Your task to perform on an android device: open wifi settings Image 0: 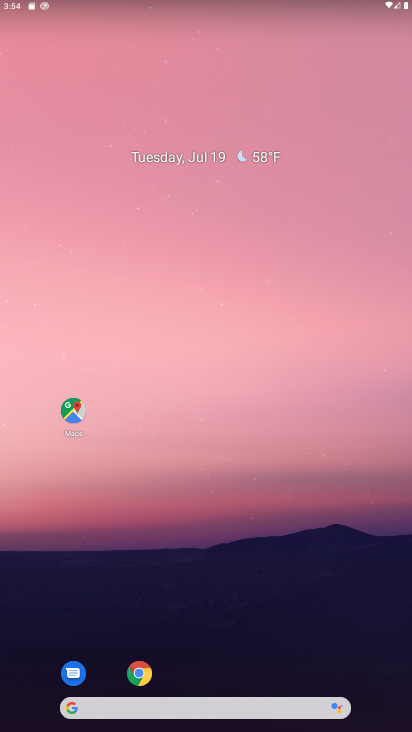
Step 0: drag from (207, 685) to (242, 52)
Your task to perform on an android device: open wifi settings Image 1: 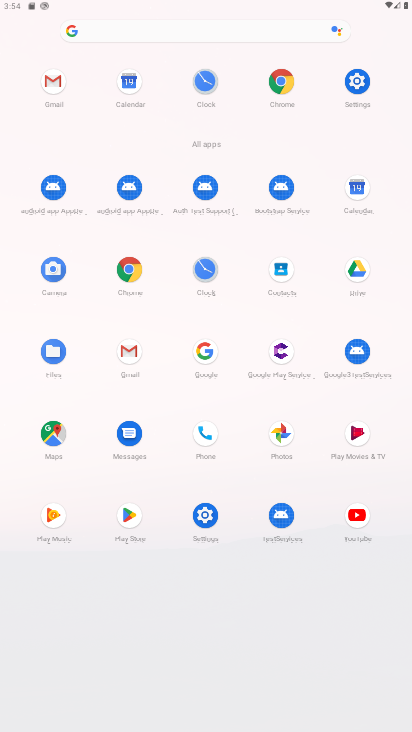
Step 1: click (352, 78)
Your task to perform on an android device: open wifi settings Image 2: 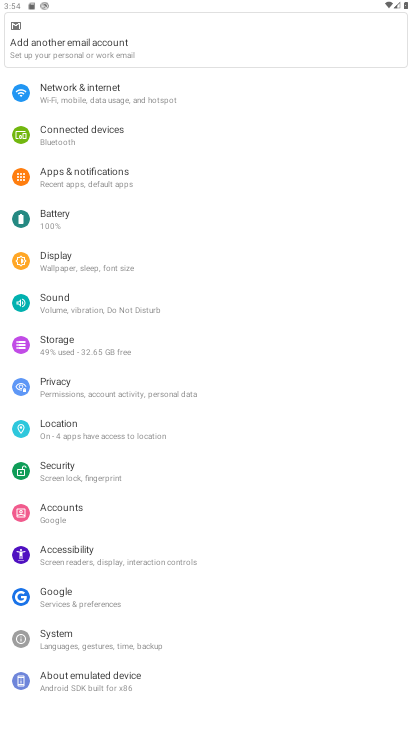
Step 2: click (117, 95)
Your task to perform on an android device: open wifi settings Image 3: 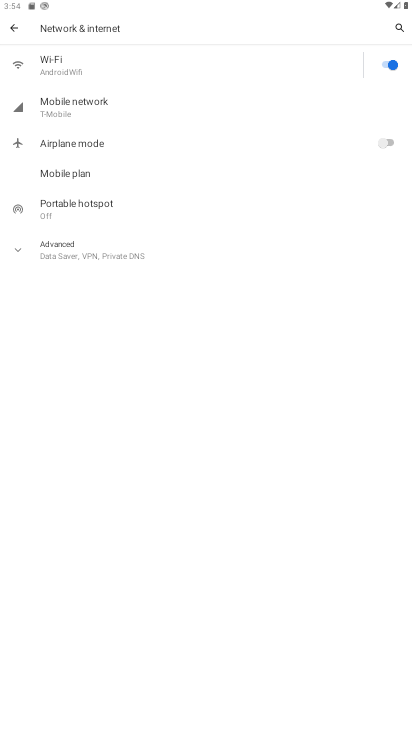
Step 3: click (99, 66)
Your task to perform on an android device: open wifi settings Image 4: 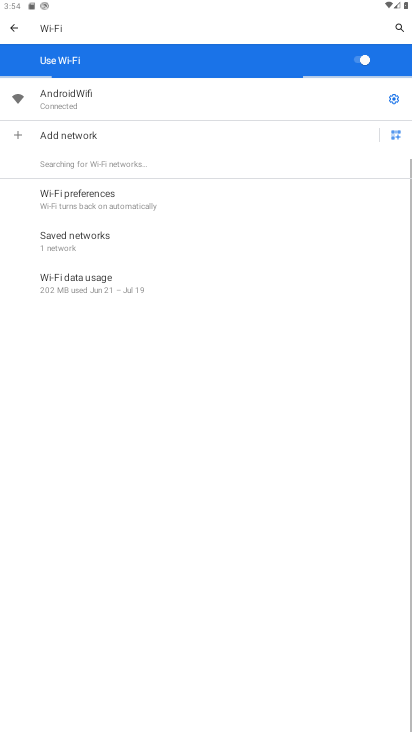
Step 4: task complete